Your task to perform on an android device: Go to Reddit.com Image 0: 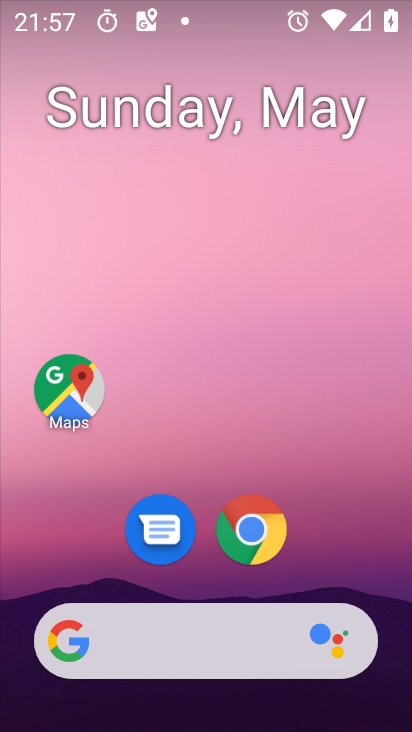
Step 0: click (263, 539)
Your task to perform on an android device: Go to Reddit.com Image 1: 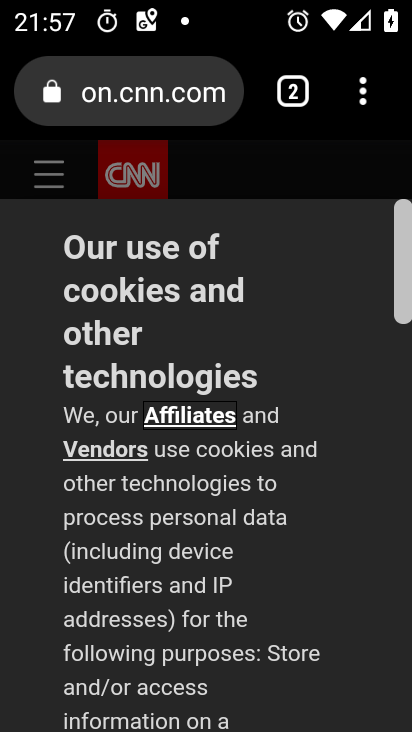
Step 1: click (116, 97)
Your task to perform on an android device: Go to Reddit.com Image 2: 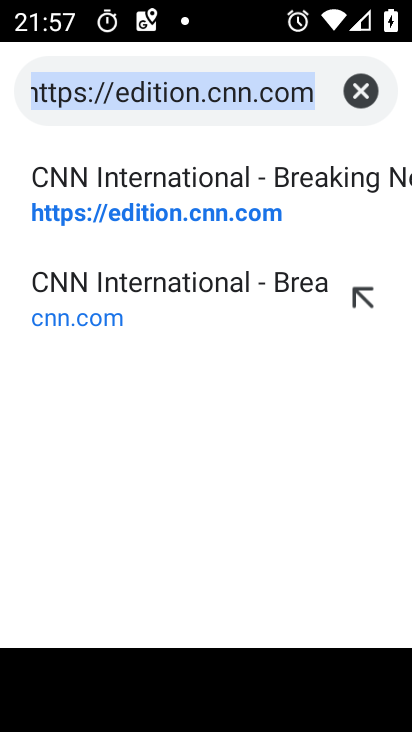
Step 2: click (355, 92)
Your task to perform on an android device: Go to Reddit.com Image 3: 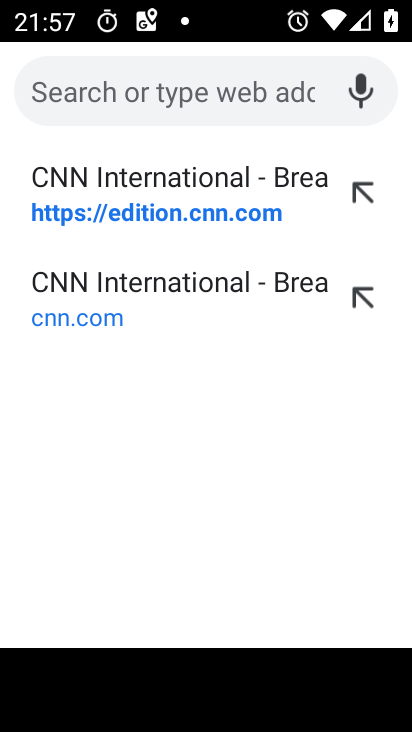
Step 3: type "reddit.com"
Your task to perform on an android device: Go to Reddit.com Image 4: 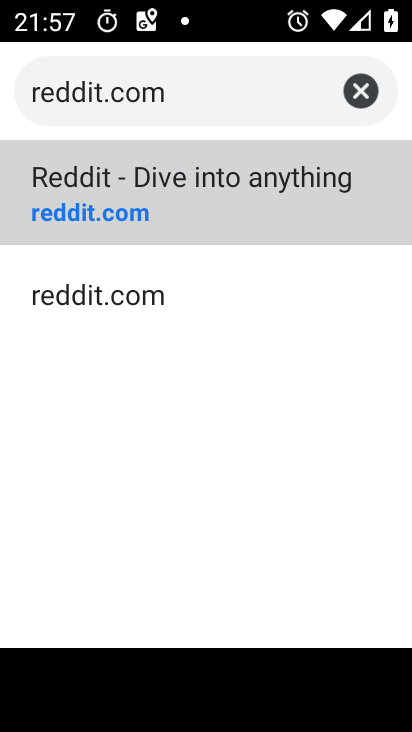
Step 4: click (94, 201)
Your task to perform on an android device: Go to Reddit.com Image 5: 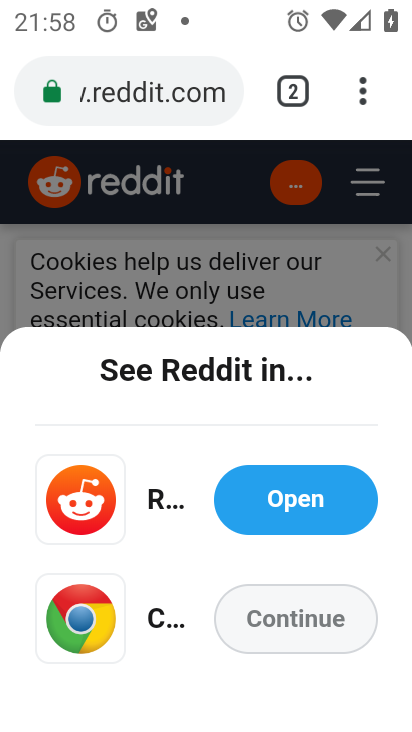
Step 5: task complete